Your task to perform on an android device: turn on notifications settings in the gmail app Image 0: 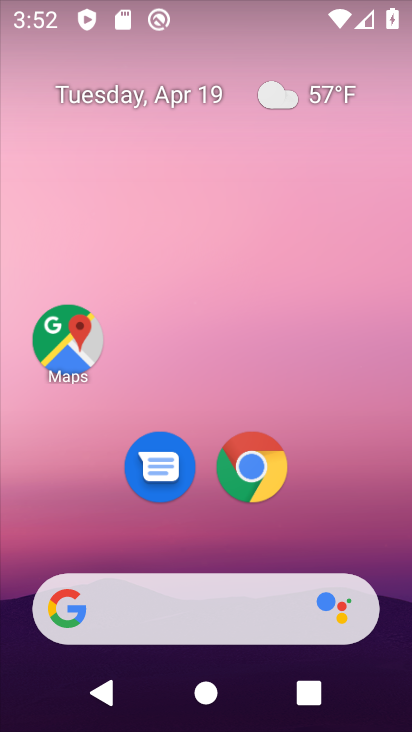
Step 0: drag from (223, 436) to (222, 91)
Your task to perform on an android device: turn on notifications settings in the gmail app Image 1: 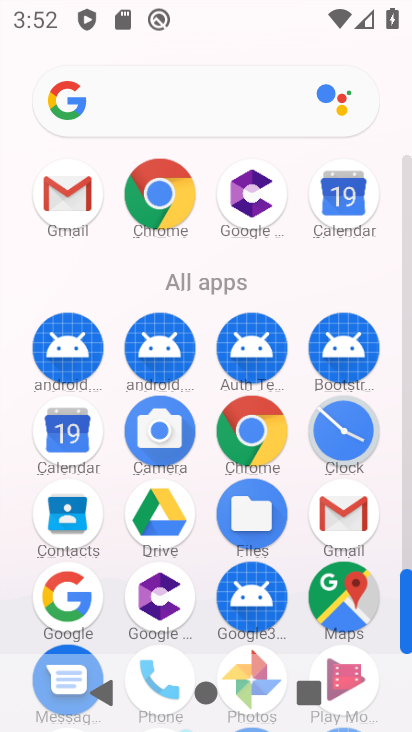
Step 1: drag from (283, 384) to (261, 220)
Your task to perform on an android device: turn on notifications settings in the gmail app Image 2: 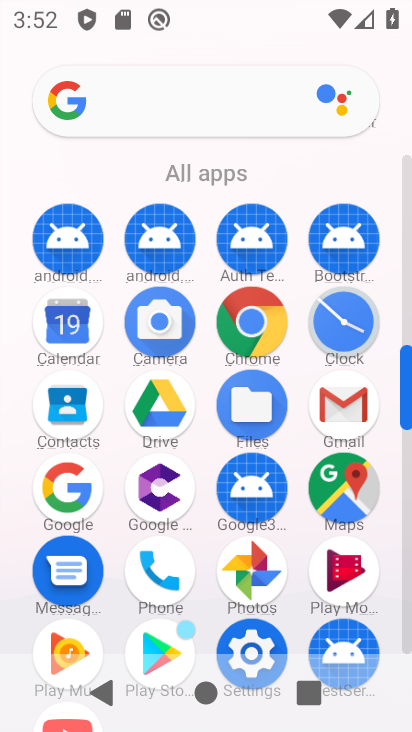
Step 2: click (344, 413)
Your task to perform on an android device: turn on notifications settings in the gmail app Image 3: 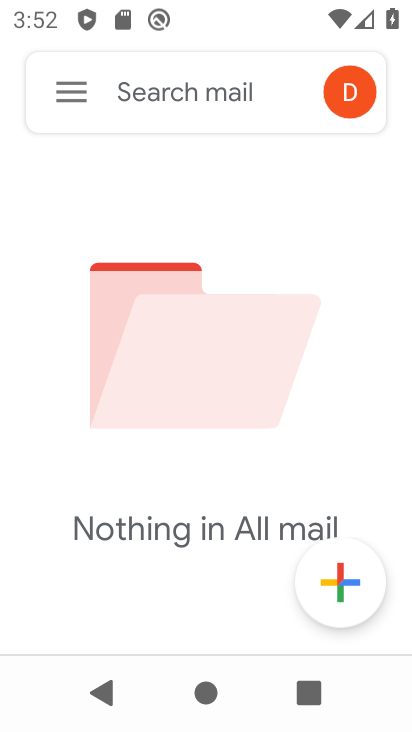
Step 3: click (80, 104)
Your task to perform on an android device: turn on notifications settings in the gmail app Image 4: 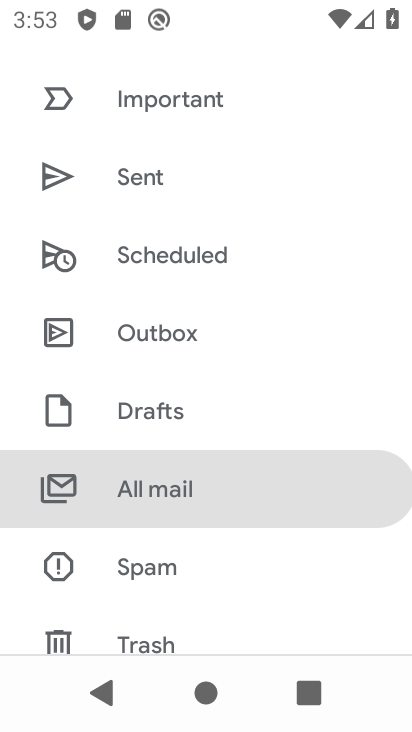
Step 4: drag from (130, 220) to (127, 161)
Your task to perform on an android device: turn on notifications settings in the gmail app Image 5: 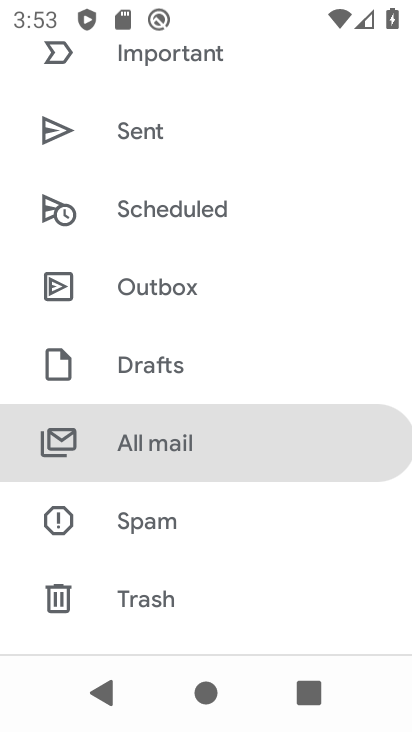
Step 5: drag from (157, 423) to (89, 153)
Your task to perform on an android device: turn on notifications settings in the gmail app Image 6: 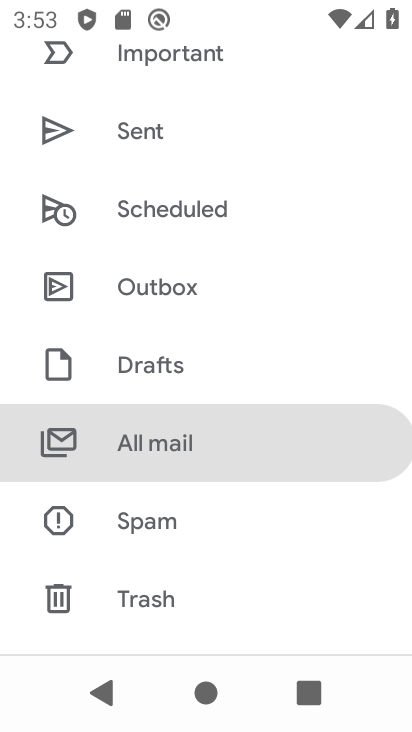
Step 6: drag from (182, 477) to (112, 163)
Your task to perform on an android device: turn on notifications settings in the gmail app Image 7: 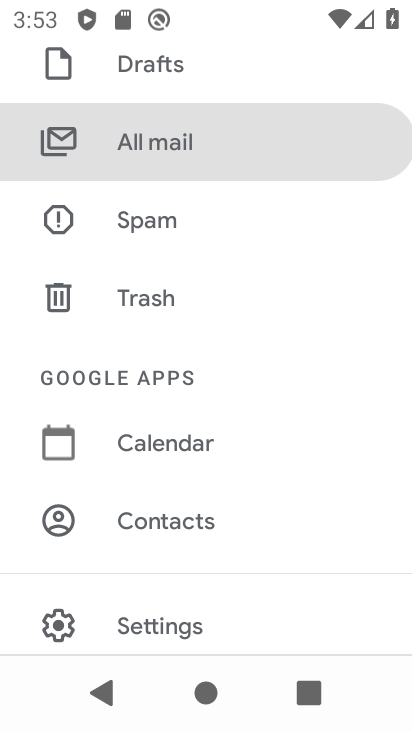
Step 7: drag from (211, 520) to (180, 264)
Your task to perform on an android device: turn on notifications settings in the gmail app Image 8: 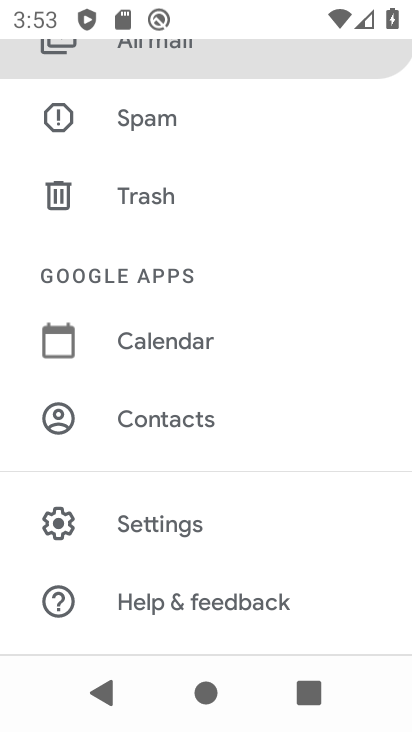
Step 8: click (204, 517)
Your task to perform on an android device: turn on notifications settings in the gmail app Image 9: 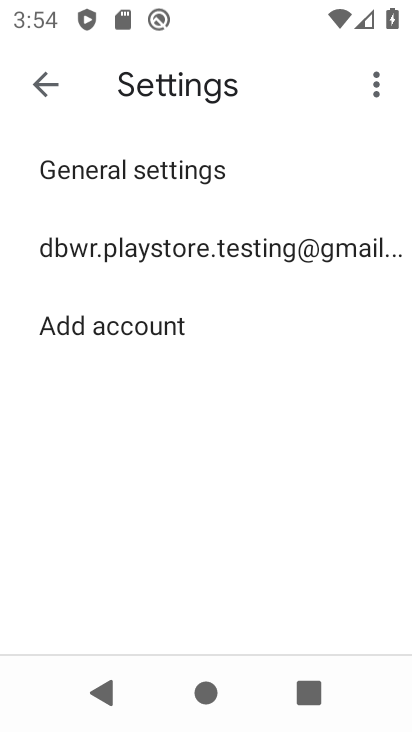
Step 9: click (205, 182)
Your task to perform on an android device: turn on notifications settings in the gmail app Image 10: 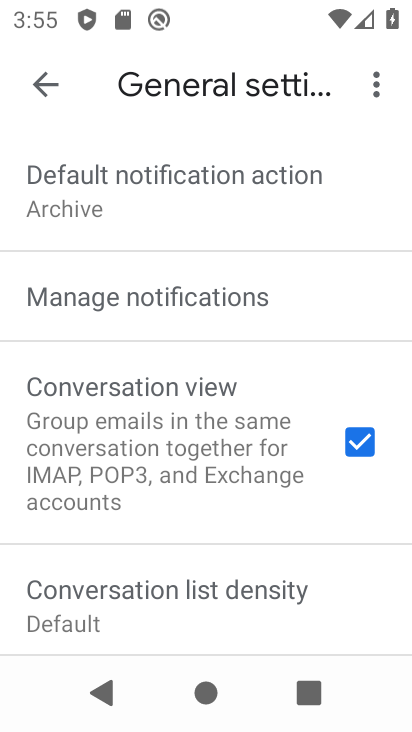
Step 10: click (186, 306)
Your task to perform on an android device: turn on notifications settings in the gmail app Image 11: 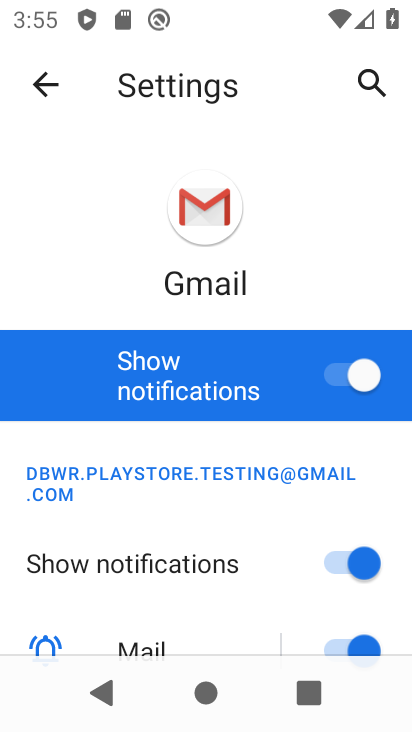
Step 11: task complete